Your task to perform on an android device: Show me popular videos on Youtube Image 0: 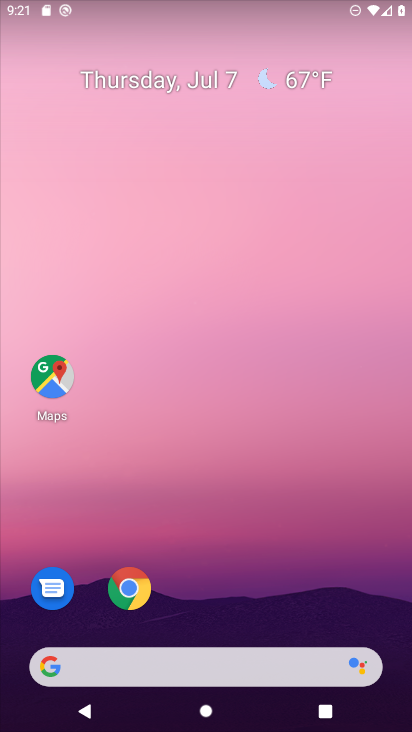
Step 0: drag from (230, 606) to (180, 75)
Your task to perform on an android device: Show me popular videos on Youtube Image 1: 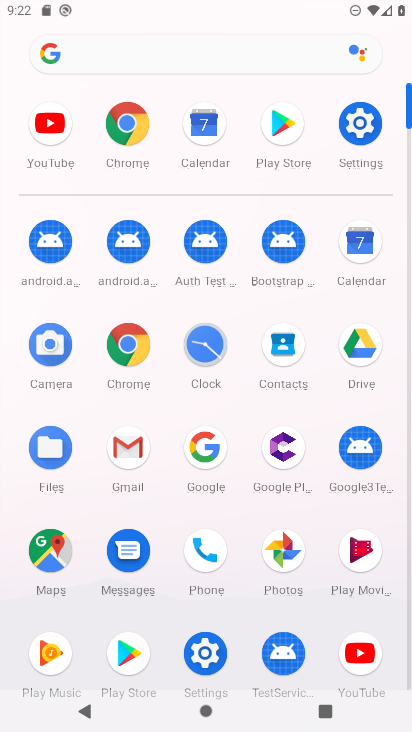
Step 1: click (53, 124)
Your task to perform on an android device: Show me popular videos on Youtube Image 2: 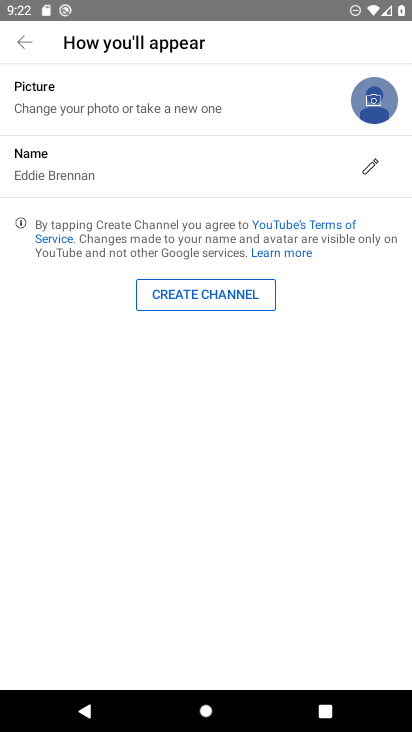
Step 2: press back button
Your task to perform on an android device: Show me popular videos on Youtube Image 3: 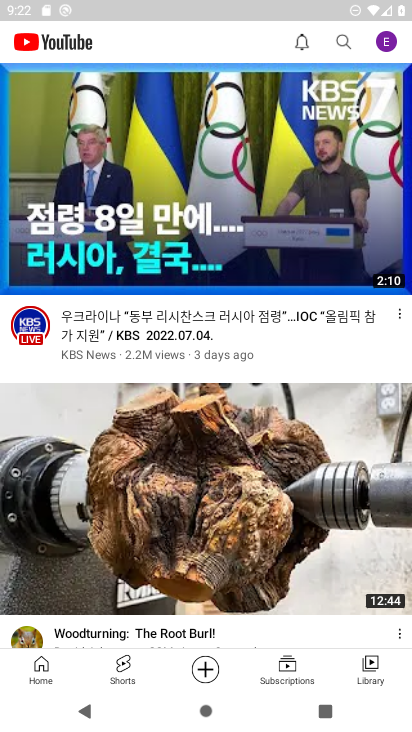
Step 3: click (340, 38)
Your task to perform on an android device: Show me popular videos on Youtube Image 4: 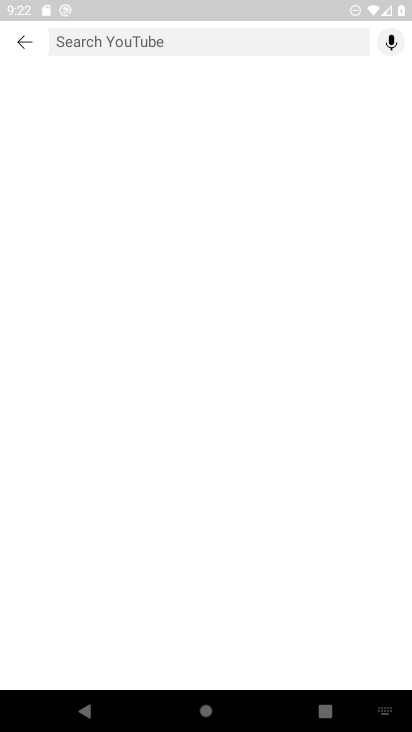
Step 4: type "popular videos"
Your task to perform on an android device: Show me popular videos on Youtube Image 5: 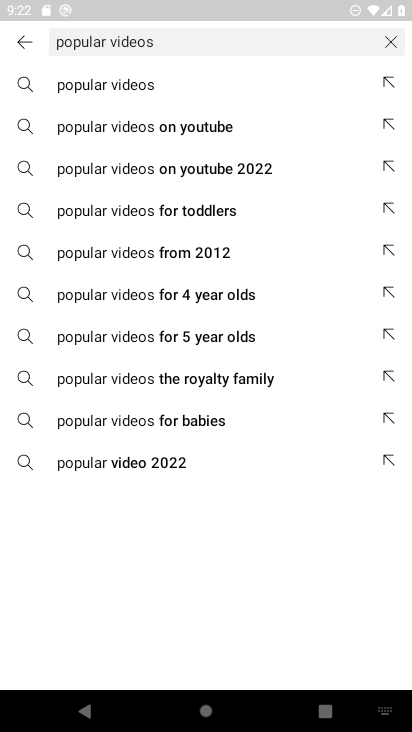
Step 5: click (142, 81)
Your task to perform on an android device: Show me popular videos on Youtube Image 6: 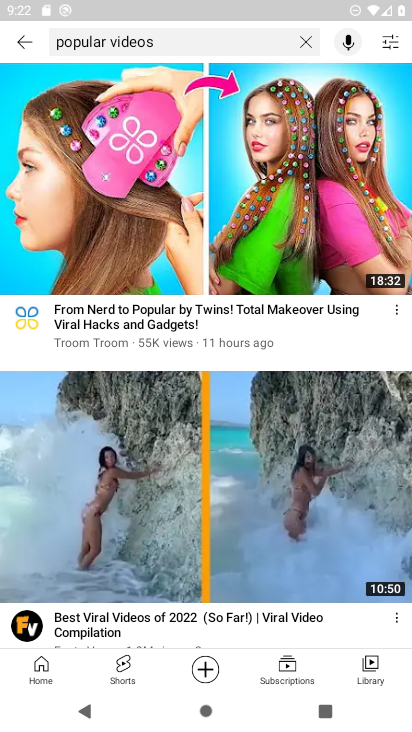
Step 6: task complete